Your task to perform on an android device: turn on priority inbox in the gmail app Image 0: 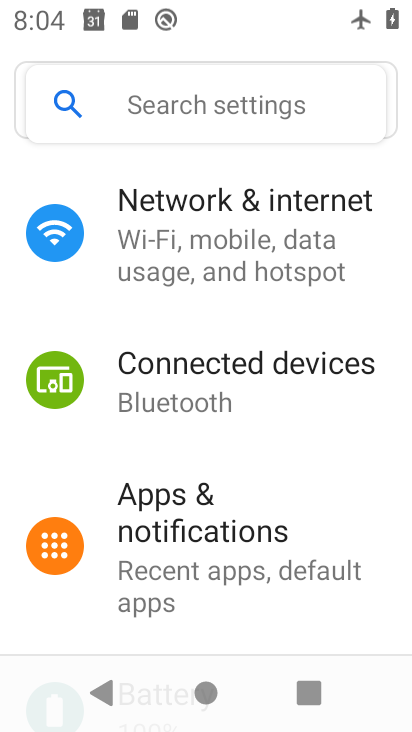
Step 0: press home button
Your task to perform on an android device: turn on priority inbox in the gmail app Image 1: 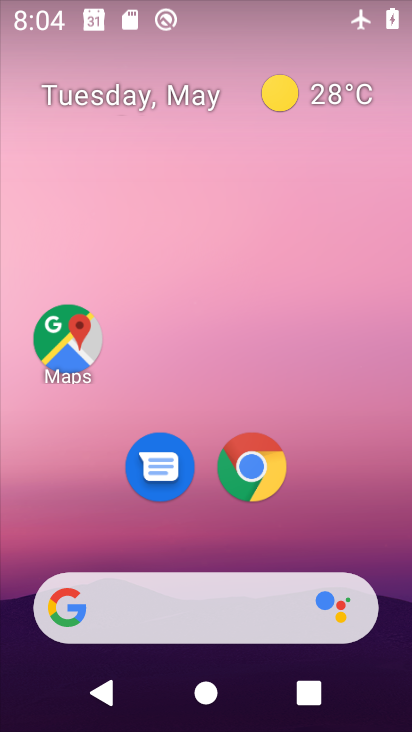
Step 1: drag from (399, 688) to (274, 0)
Your task to perform on an android device: turn on priority inbox in the gmail app Image 2: 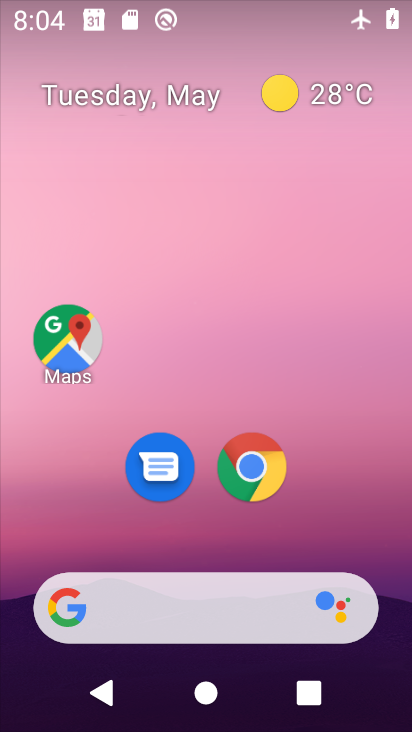
Step 2: drag from (396, 703) to (229, 2)
Your task to perform on an android device: turn on priority inbox in the gmail app Image 3: 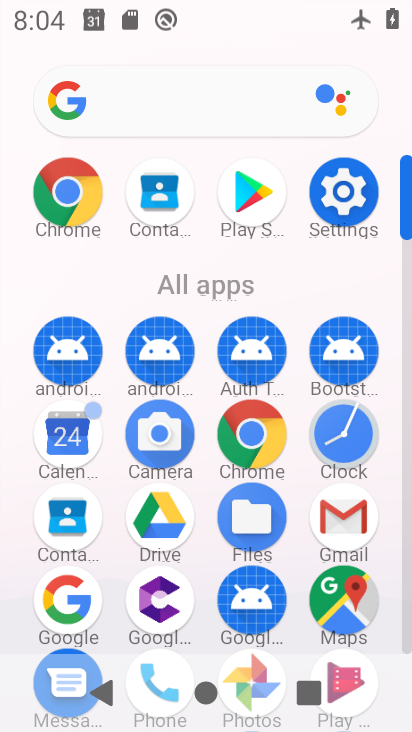
Step 3: click (319, 495)
Your task to perform on an android device: turn on priority inbox in the gmail app Image 4: 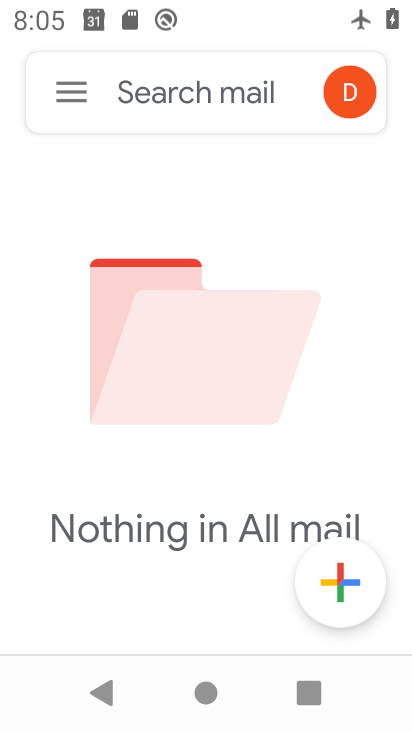
Step 4: click (62, 83)
Your task to perform on an android device: turn on priority inbox in the gmail app Image 5: 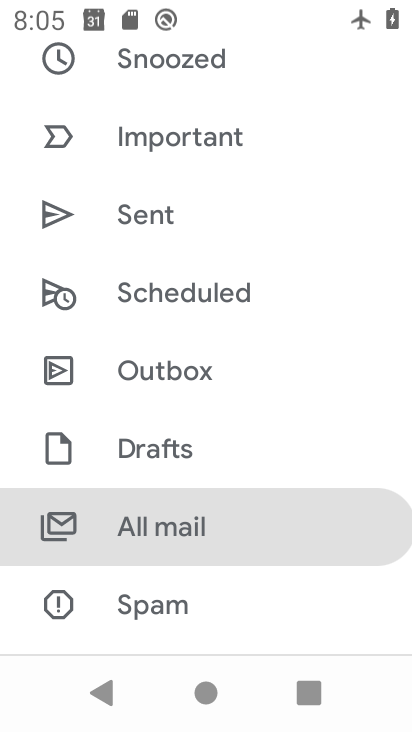
Step 5: drag from (356, 633) to (282, 282)
Your task to perform on an android device: turn on priority inbox in the gmail app Image 6: 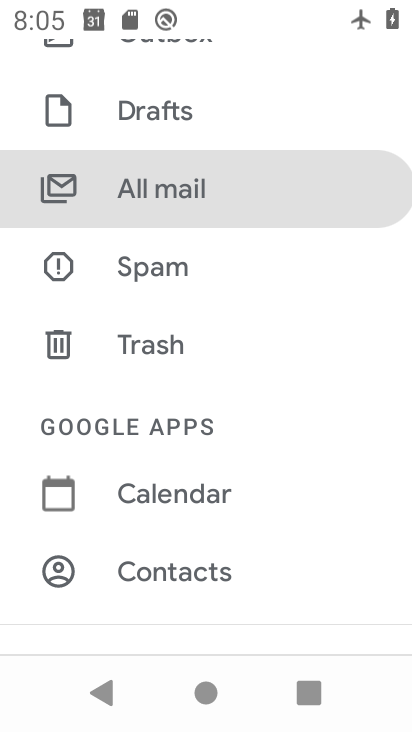
Step 6: drag from (339, 593) to (250, 255)
Your task to perform on an android device: turn on priority inbox in the gmail app Image 7: 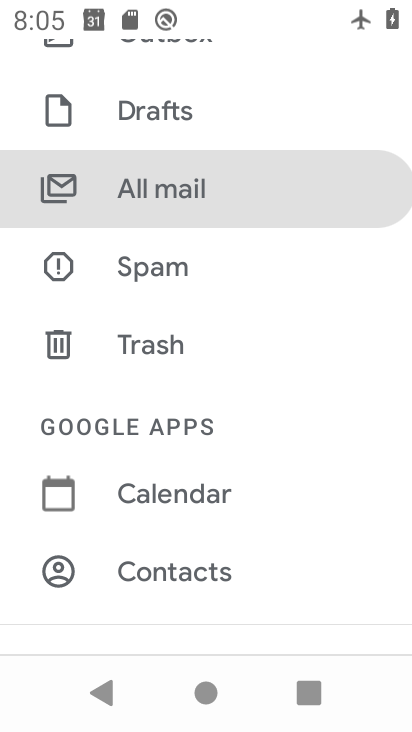
Step 7: drag from (361, 606) to (229, 94)
Your task to perform on an android device: turn on priority inbox in the gmail app Image 8: 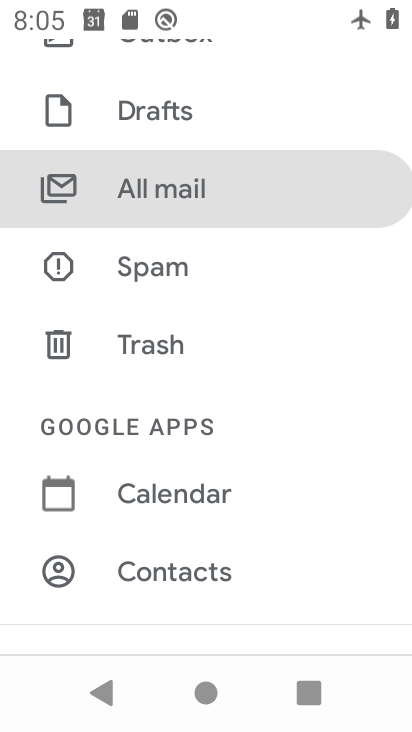
Step 8: drag from (328, 596) to (238, 33)
Your task to perform on an android device: turn on priority inbox in the gmail app Image 9: 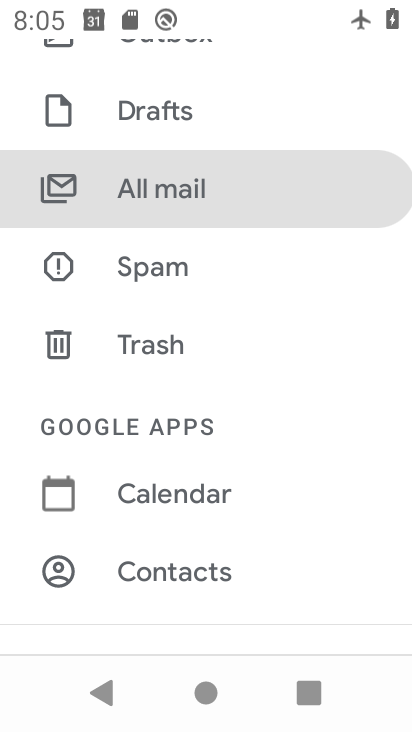
Step 9: drag from (315, 612) to (208, 173)
Your task to perform on an android device: turn on priority inbox in the gmail app Image 10: 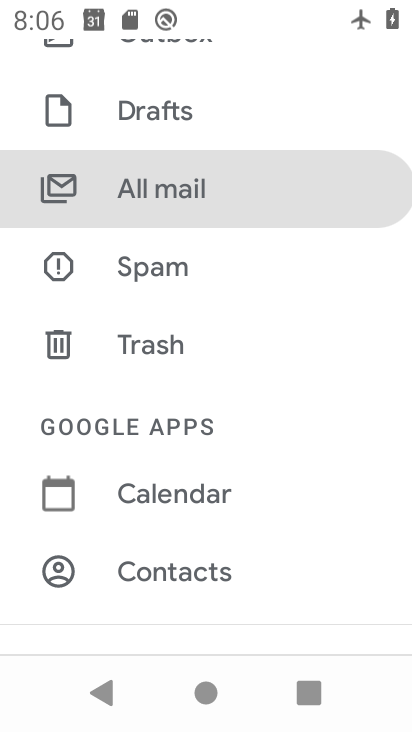
Step 10: drag from (363, 589) to (116, 9)
Your task to perform on an android device: turn on priority inbox in the gmail app Image 11: 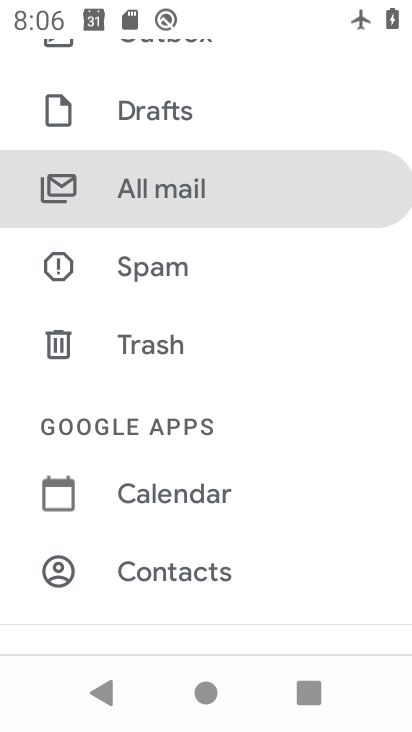
Step 11: drag from (331, 586) to (348, 127)
Your task to perform on an android device: turn on priority inbox in the gmail app Image 12: 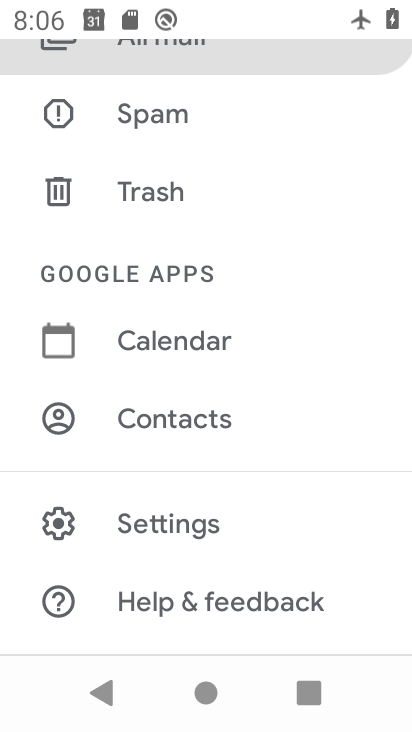
Step 12: click (200, 510)
Your task to perform on an android device: turn on priority inbox in the gmail app Image 13: 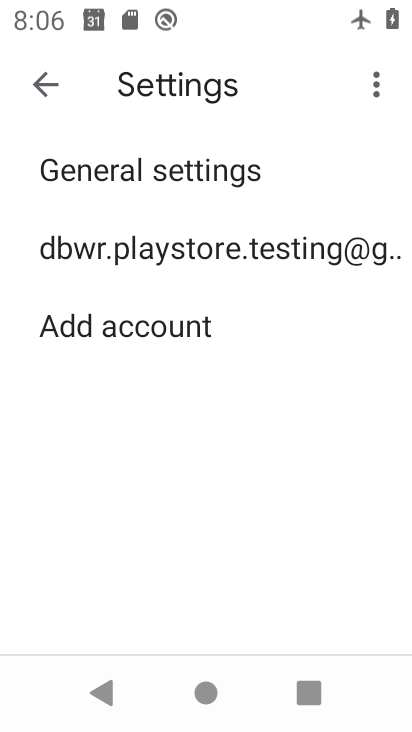
Step 13: click (142, 243)
Your task to perform on an android device: turn on priority inbox in the gmail app Image 14: 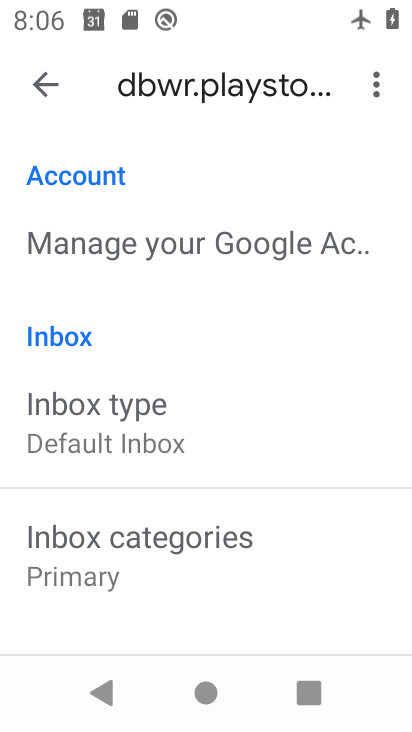
Step 14: click (82, 429)
Your task to perform on an android device: turn on priority inbox in the gmail app Image 15: 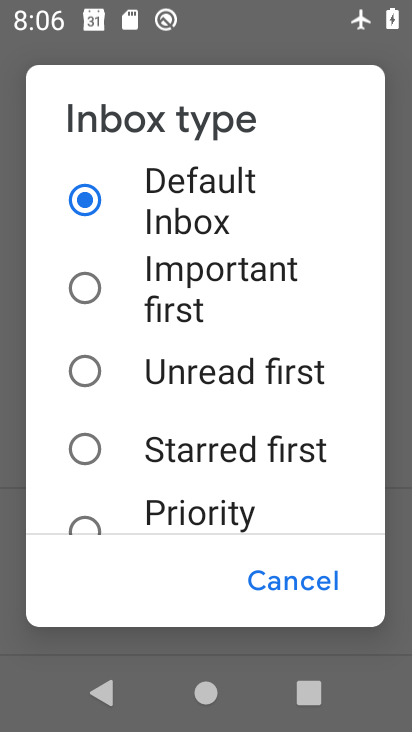
Step 15: click (74, 513)
Your task to perform on an android device: turn on priority inbox in the gmail app Image 16: 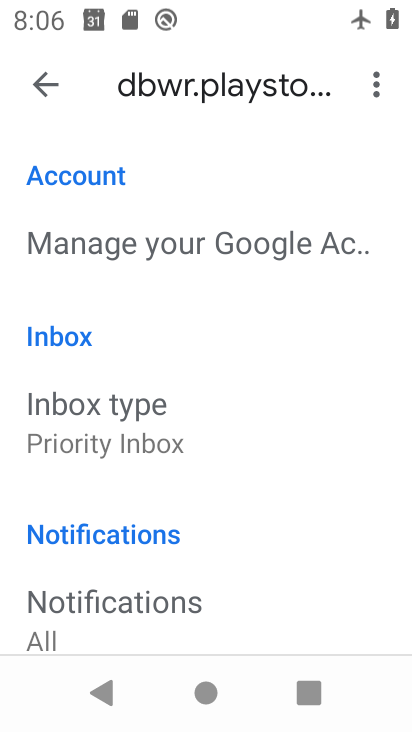
Step 16: task complete